Your task to perform on an android device: open wifi settings Image 0: 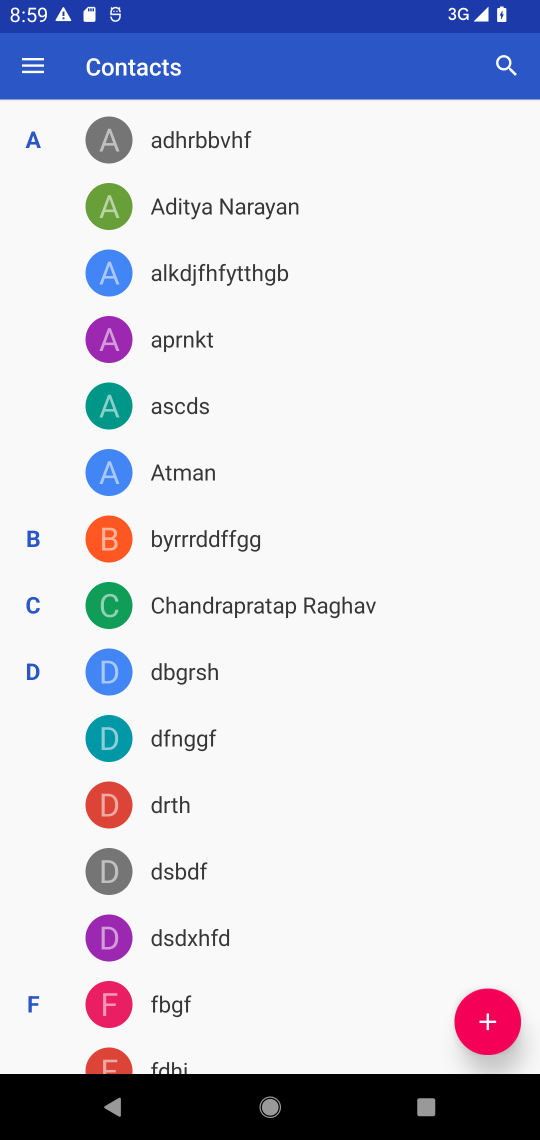
Step 0: press home button
Your task to perform on an android device: open wifi settings Image 1: 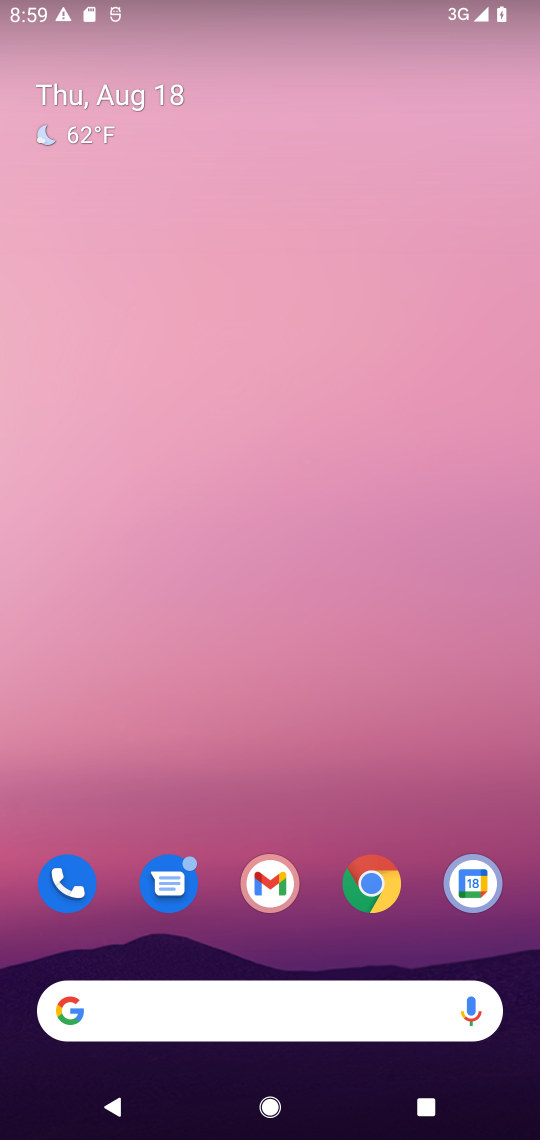
Step 1: drag from (62, 1012) to (382, 274)
Your task to perform on an android device: open wifi settings Image 2: 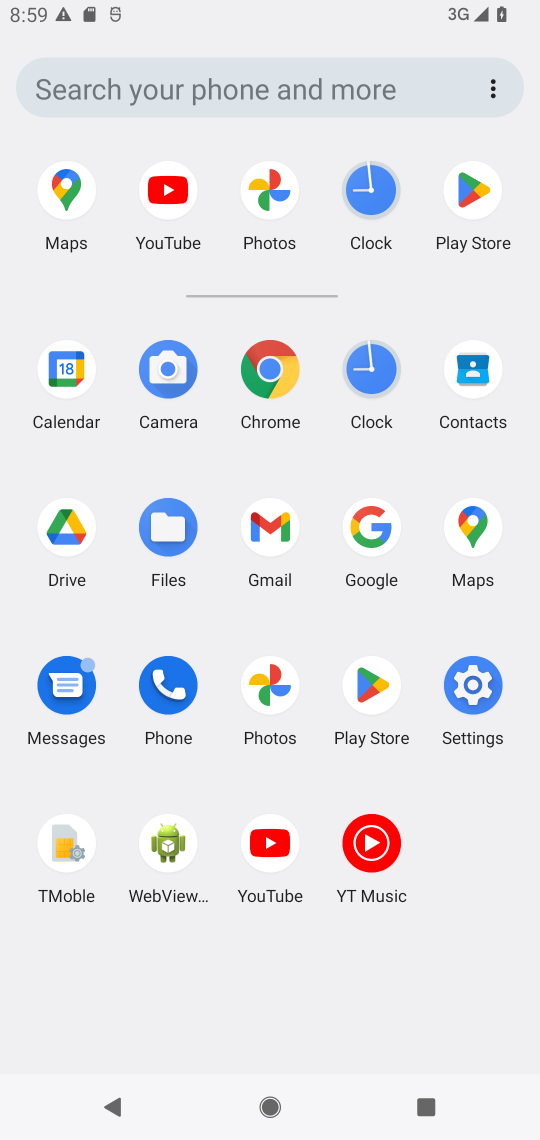
Step 2: click (486, 712)
Your task to perform on an android device: open wifi settings Image 3: 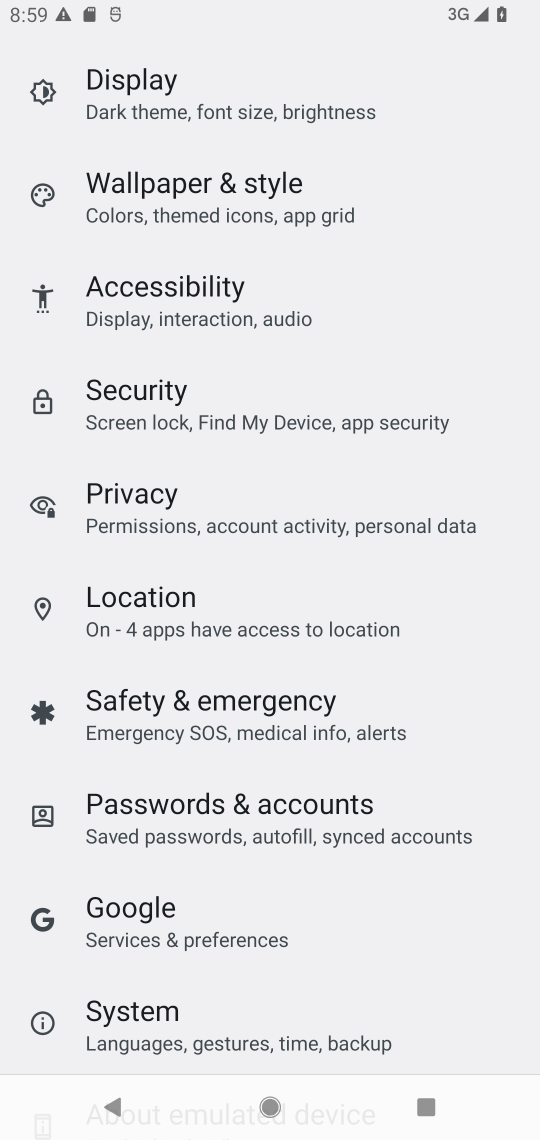
Step 3: drag from (408, 91) to (395, 1070)
Your task to perform on an android device: open wifi settings Image 4: 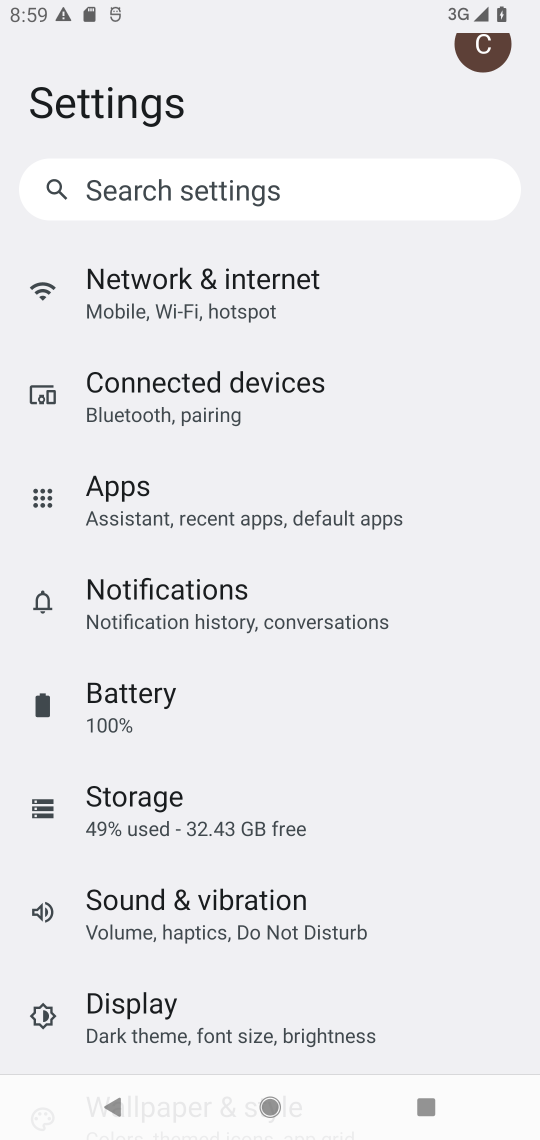
Step 4: click (193, 265)
Your task to perform on an android device: open wifi settings Image 5: 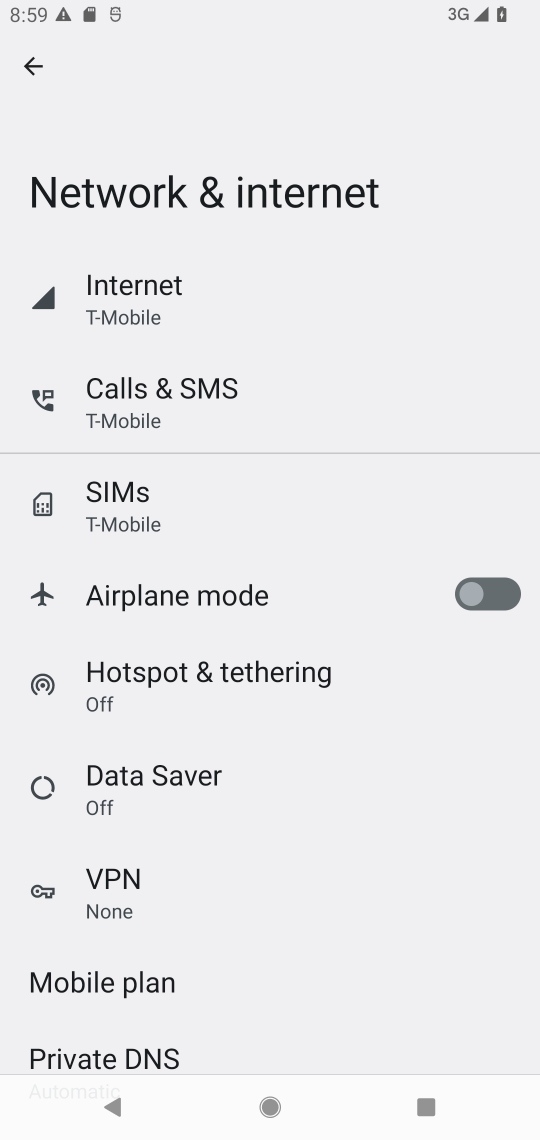
Step 5: click (176, 295)
Your task to perform on an android device: open wifi settings Image 6: 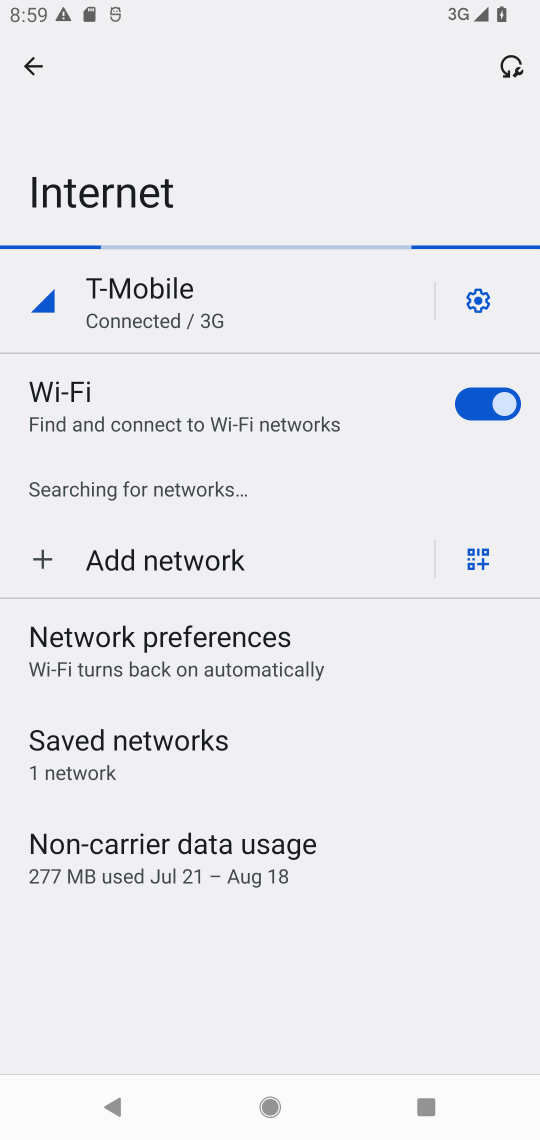
Step 6: task complete